Your task to perform on an android device: open the mobile data screen to see how much data has been used Image 0: 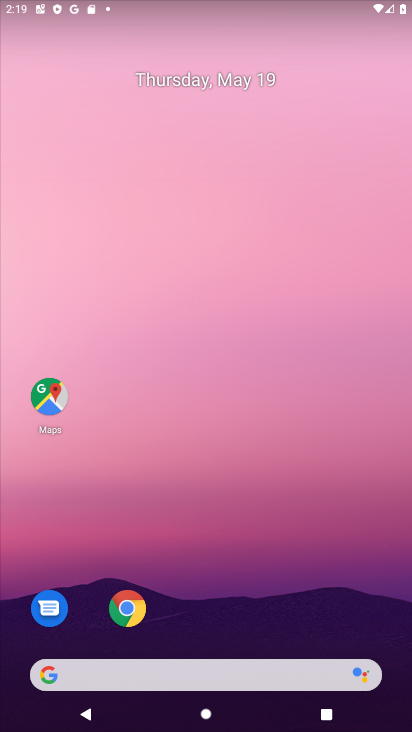
Step 0: drag from (268, 650) to (243, 8)
Your task to perform on an android device: open the mobile data screen to see how much data has been used Image 1: 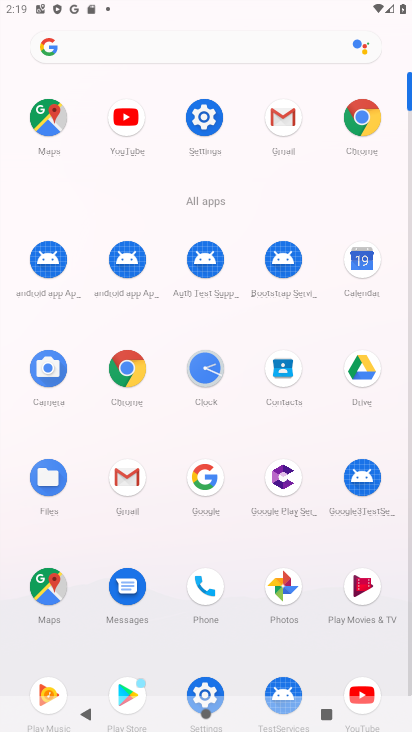
Step 1: click (214, 114)
Your task to perform on an android device: open the mobile data screen to see how much data has been used Image 2: 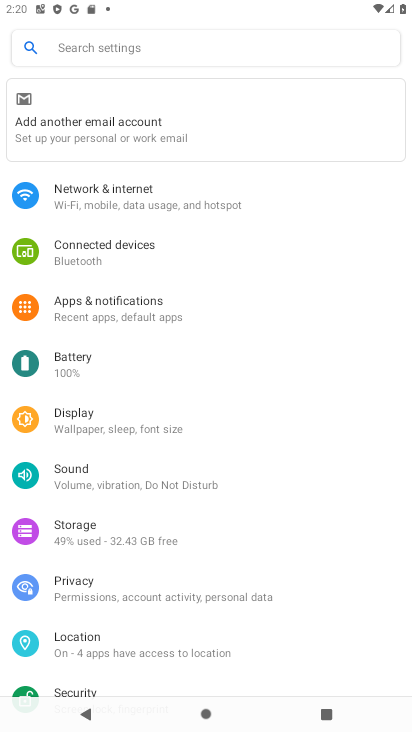
Step 2: click (145, 209)
Your task to perform on an android device: open the mobile data screen to see how much data has been used Image 3: 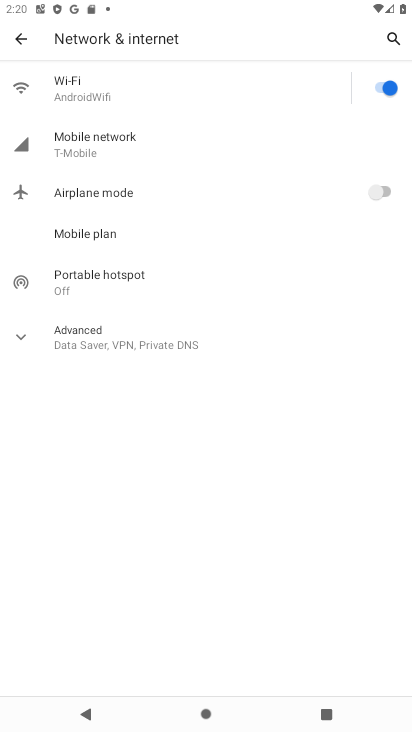
Step 3: click (157, 154)
Your task to perform on an android device: open the mobile data screen to see how much data has been used Image 4: 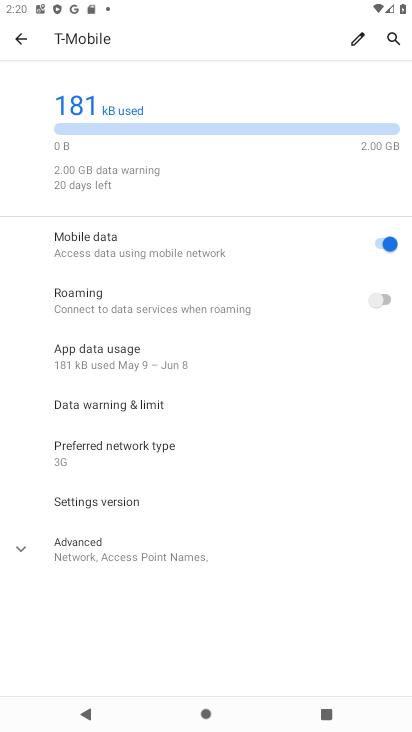
Step 4: task complete